Your task to perform on an android device: check android version Image 0: 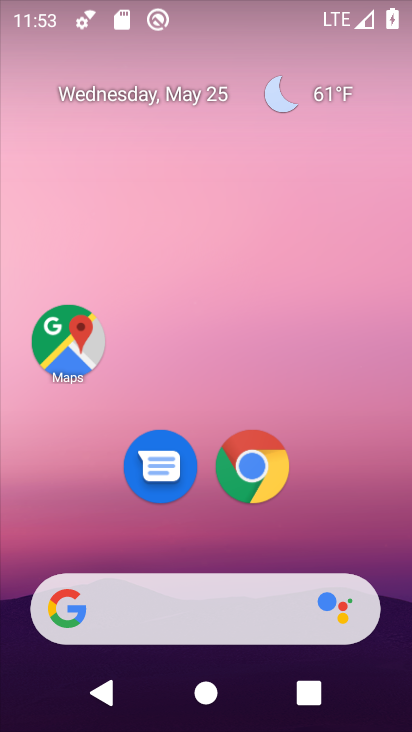
Step 0: drag from (194, 532) to (216, 1)
Your task to perform on an android device: check android version Image 1: 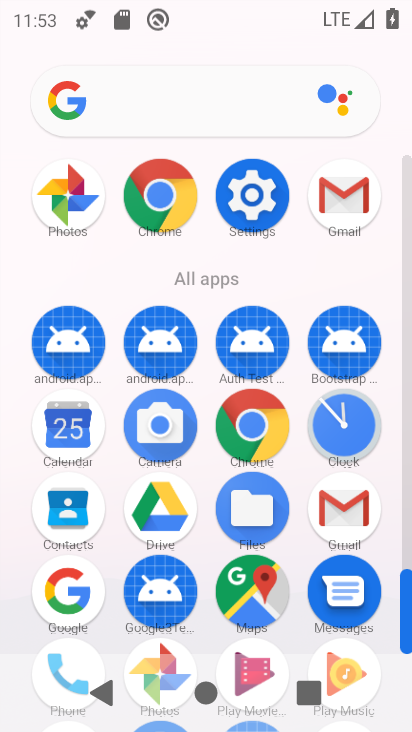
Step 1: click (257, 222)
Your task to perform on an android device: check android version Image 2: 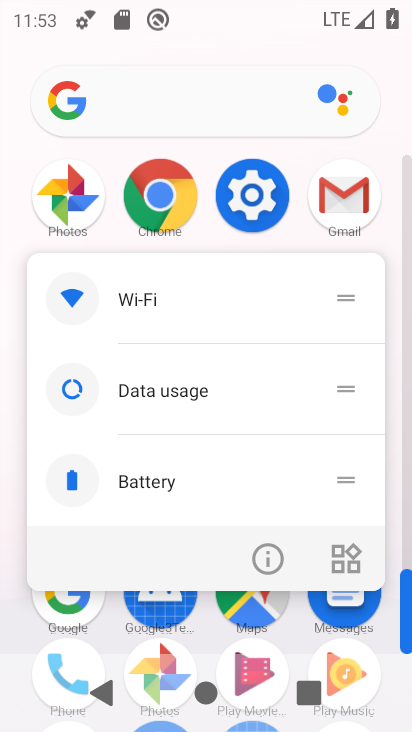
Step 2: click (259, 224)
Your task to perform on an android device: check android version Image 3: 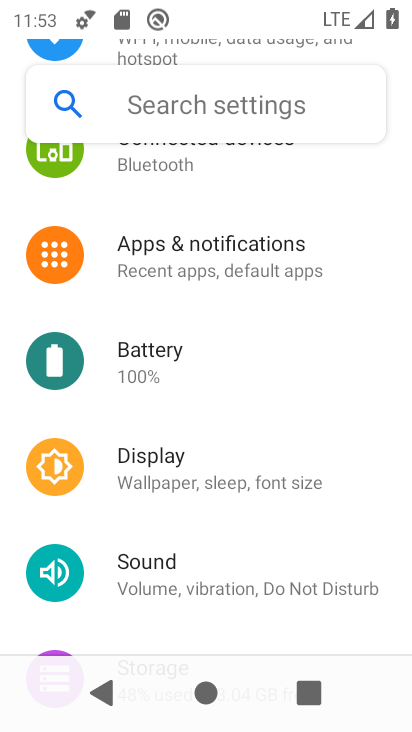
Step 3: drag from (217, 509) to (274, 125)
Your task to perform on an android device: check android version Image 4: 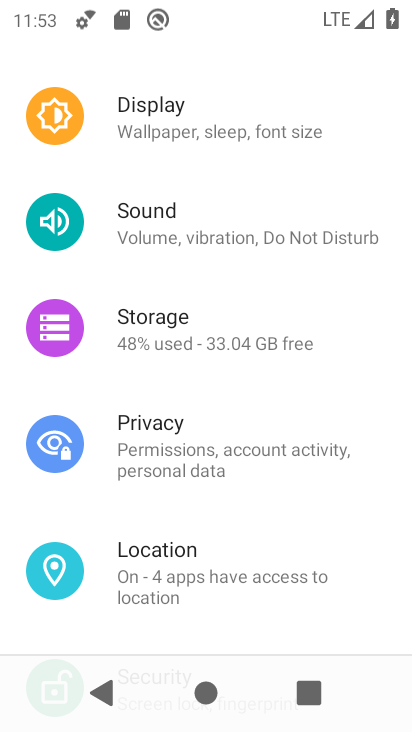
Step 4: drag from (223, 475) to (285, 107)
Your task to perform on an android device: check android version Image 5: 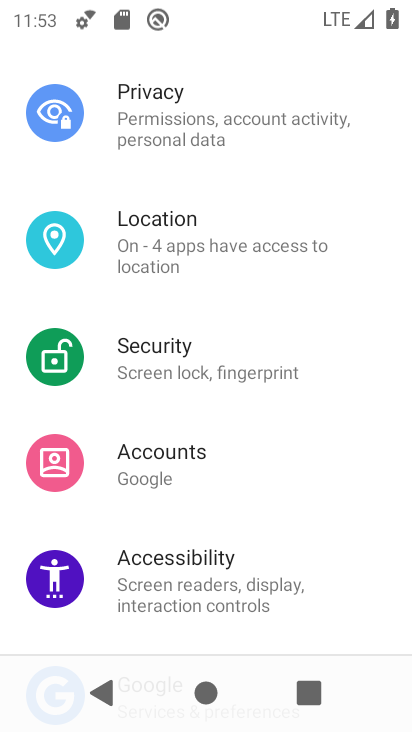
Step 5: drag from (175, 581) to (276, 126)
Your task to perform on an android device: check android version Image 6: 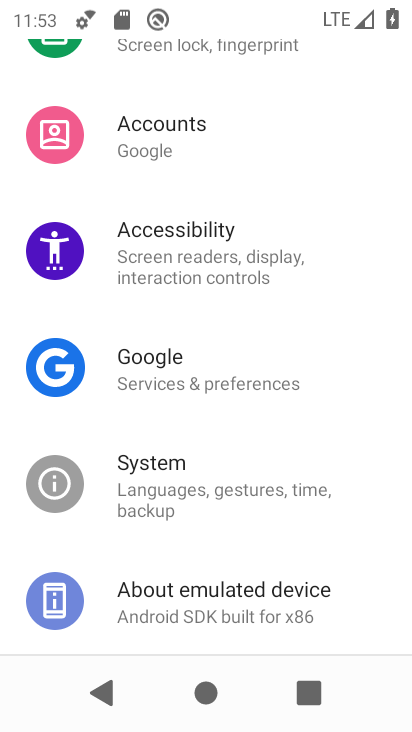
Step 6: click (199, 616)
Your task to perform on an android device: check android version Image 7: 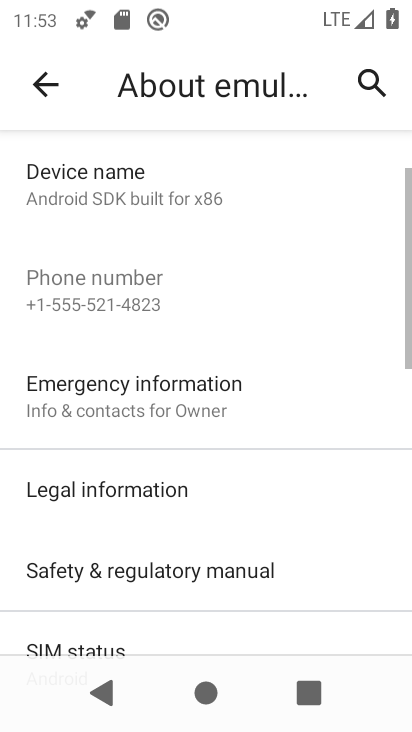
Step 7: drag from (142, 525) to (187, 312)
Your task to perform on an android device: check android version Image 8: 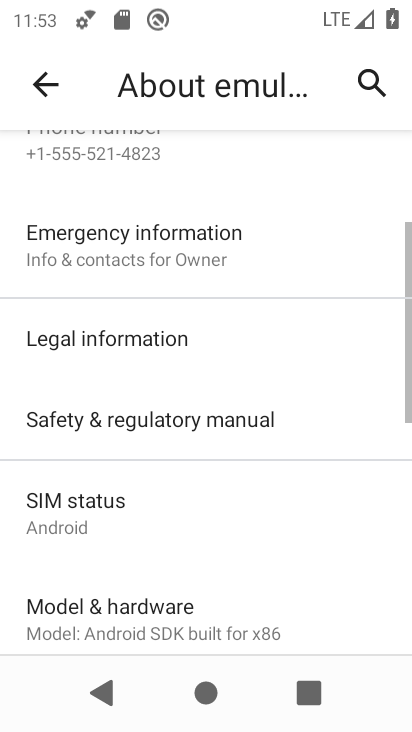
Step 8: drag from (138, 524) to (158, 269)
Your task to perform on an android device: check android version Image 9: 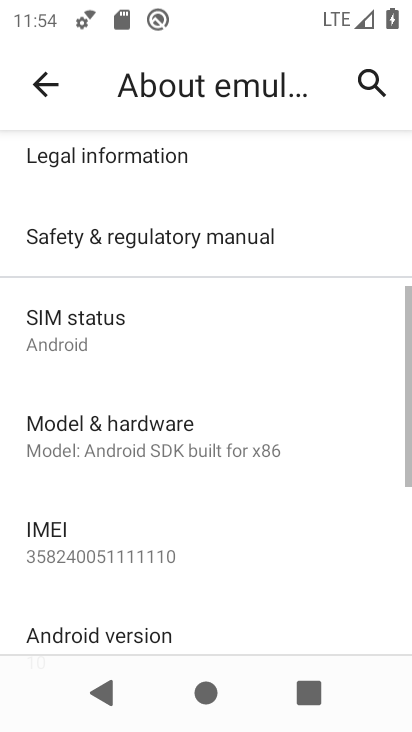
Step 9: drag from (134, 548) to (186, 327)
Your task to perform on an android device: check android version Image 10: 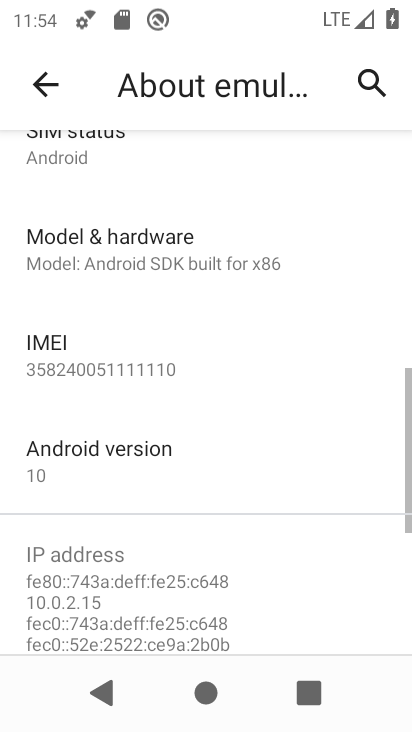
Step 10: click (110, 447)
Your task to perform on an android device: check android version Image 11: 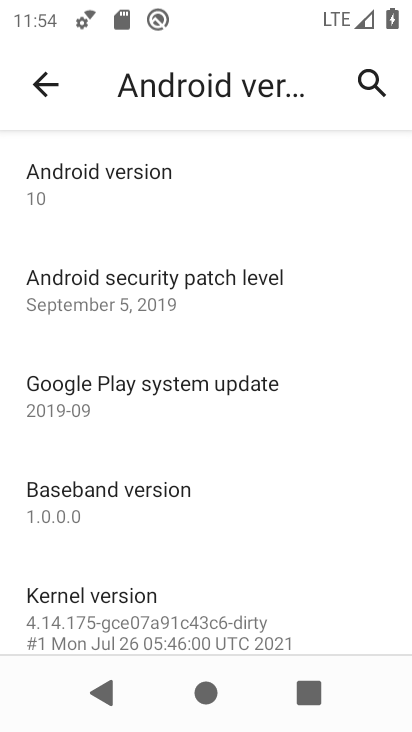
Step 11: task complete